Your task to perform on an android device: turn off improve location accuracy Image 0: 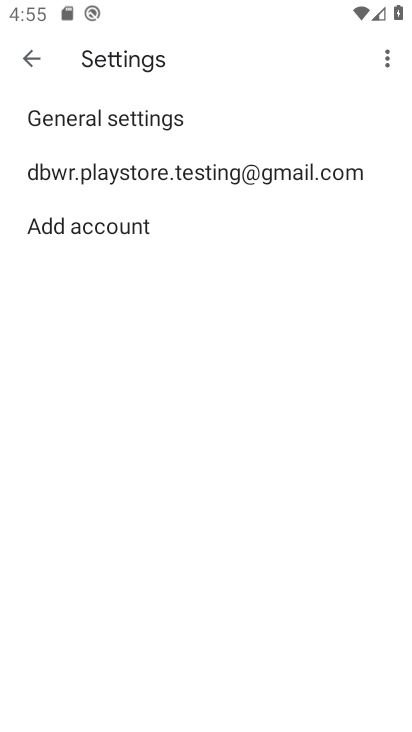
Step 0: press home button
Your task to perform on an android device: turn off improve location accuracy Image 1: 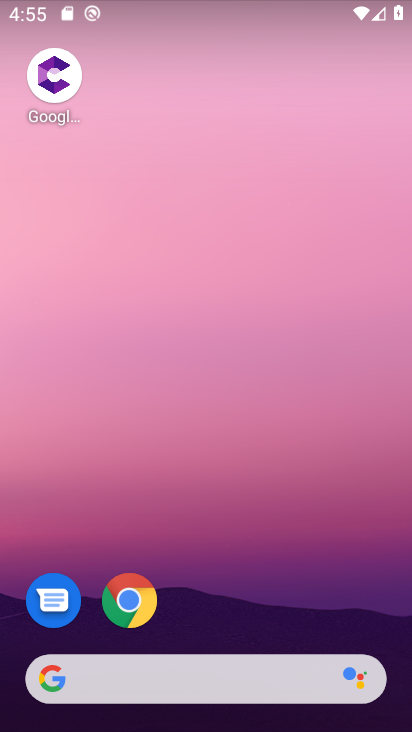
Step 1: drag from (314, 549) to (316, 134)
Your task to perform on an android device: turn off improve location accuracy Image 2: 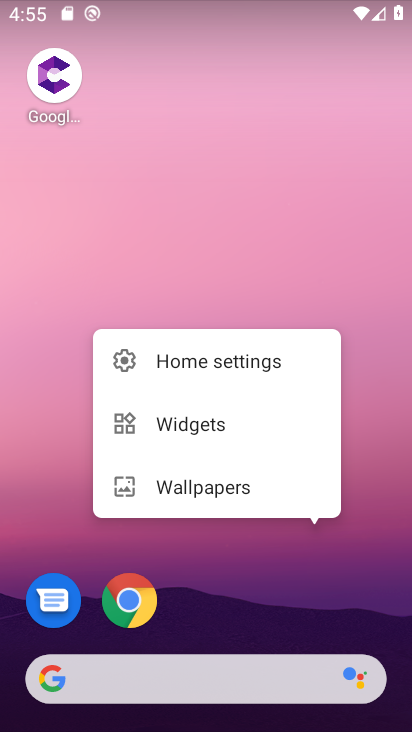
Step 2: click (368, 411)
Your task to perform on an android device: turn off improve location accuracy Image 3: 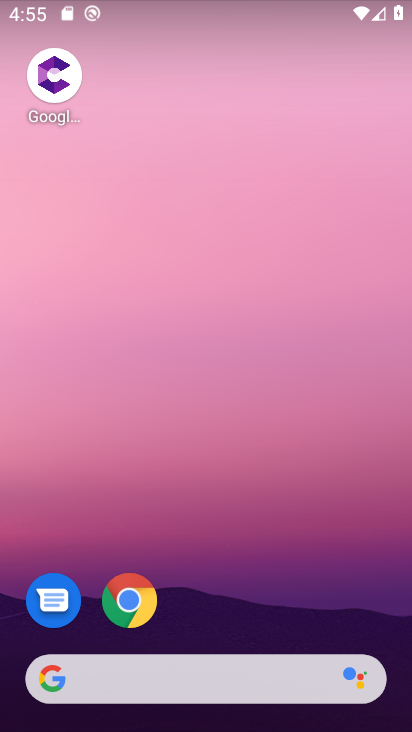
Step 3: drag from (275, 600) to (259, 165)
Your task to perform on an android device: turn off improve location accuracy Image 4: 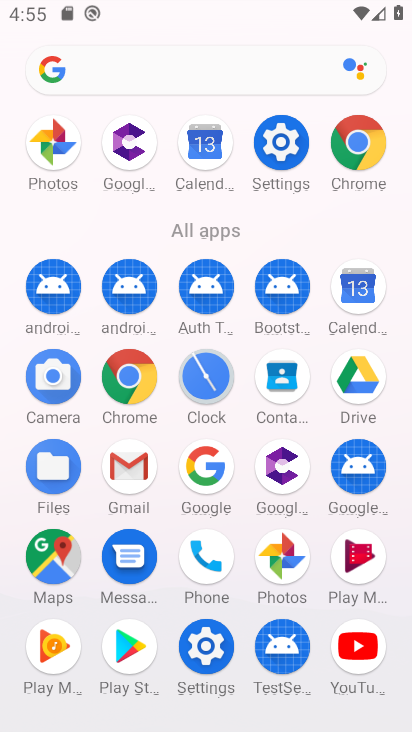
Step 4: click (273, 172)
Your task to perform on an android device: turn off improve location accuracy Image 5: 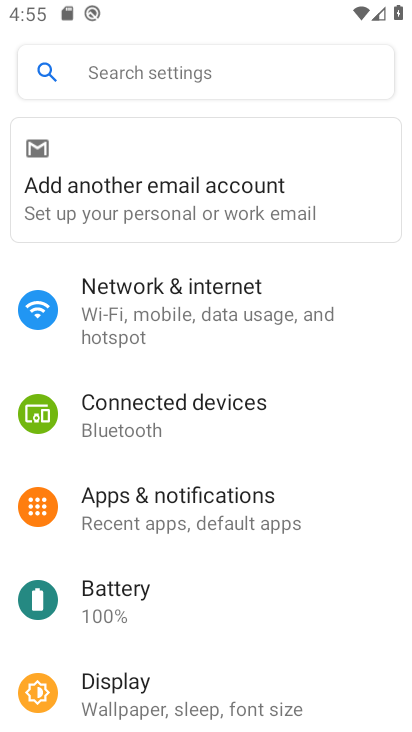
Step 5: drag from (243, 582) to (276, 197)
Your task to perform on an android device: turn off improve location accuracy Image 6: 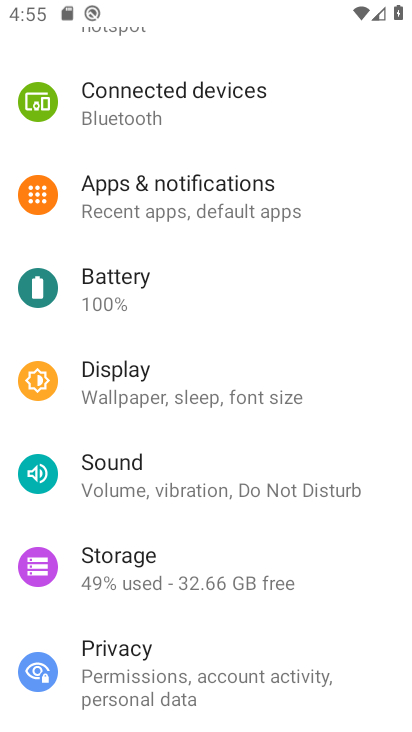
Step 6: drag from (220, 584) to (261, 350)
Your task to perform on an android device: turn off improve location accuracy Image 7: 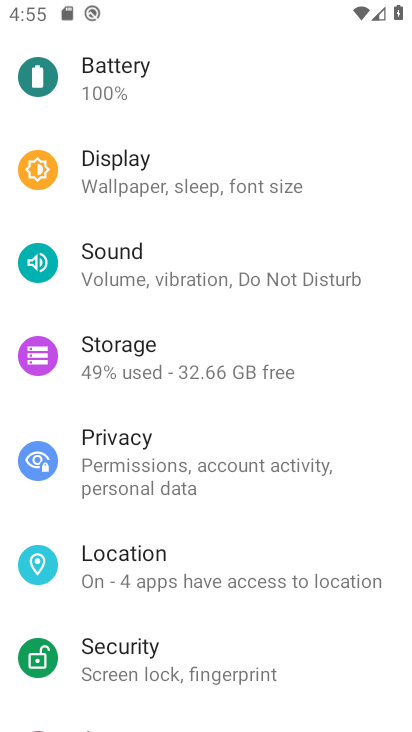
Step 7: click (229, 540)
Your task to perform on an android device: turn off improve location accuracy Image 8: 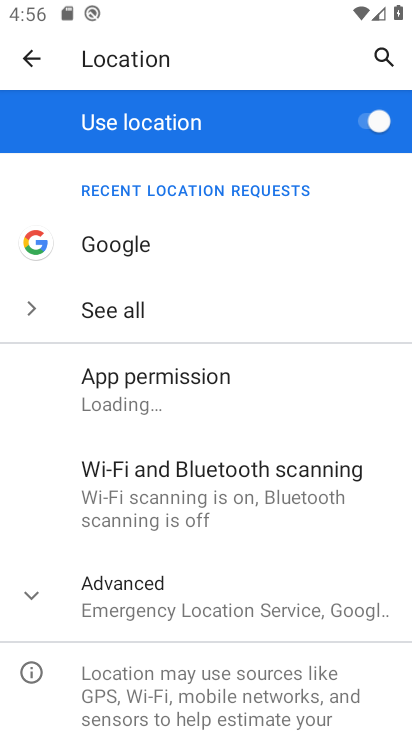
Step 8: drag from (218, 522) to (284, 179)
Your task to perform on an android device: turn off improve location accuracy Image 9: 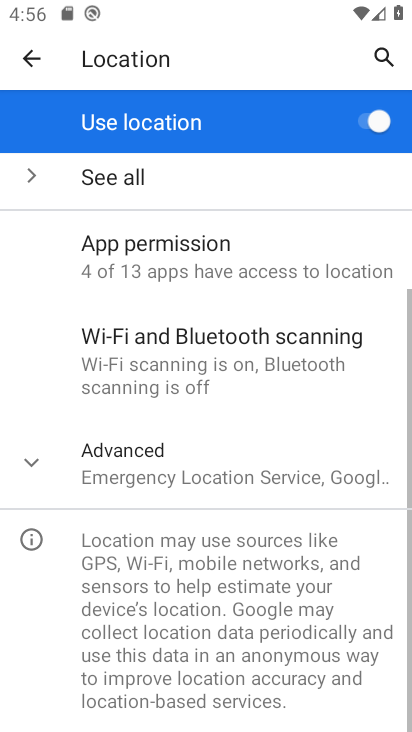
Step 9: click (203, 453)
Your task to perform on an android device: turn off improve location accuracy Image 10: 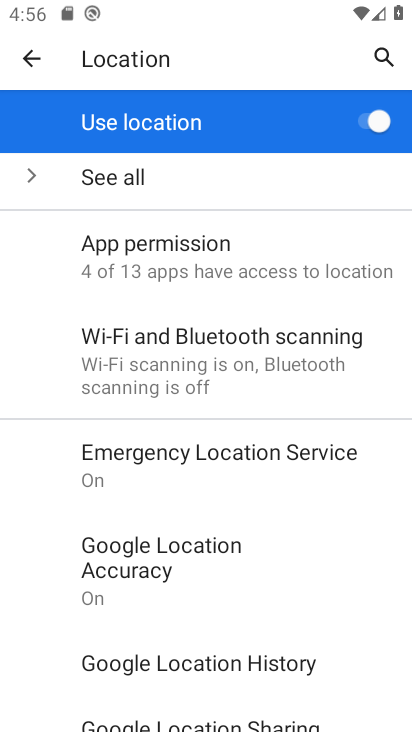
Step 10: drag from (201, 476) to (203, 234)
Your task to perform on an android device: turn off improve location accuracy Image 11: 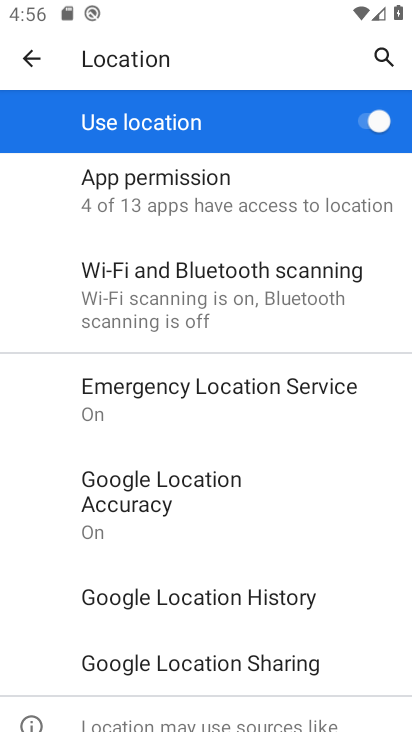
Step 11: click (216, 526)
Your task to perform on an android device: turn off improve location accuracy Image 12: 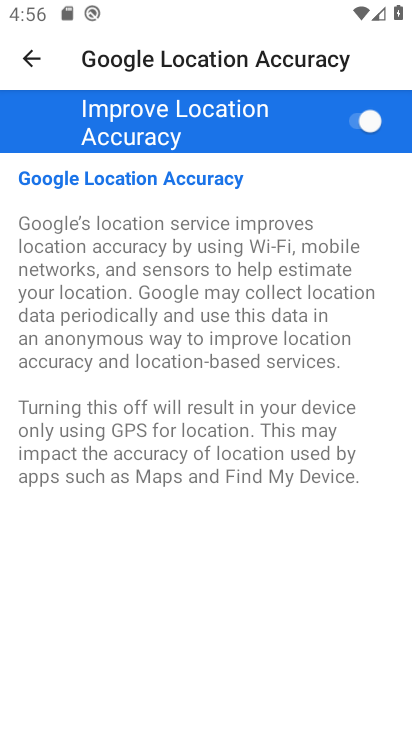
Step 12: click (364, 122)
Your task to perform on an android device: turn off improve location accuracy Image 13: 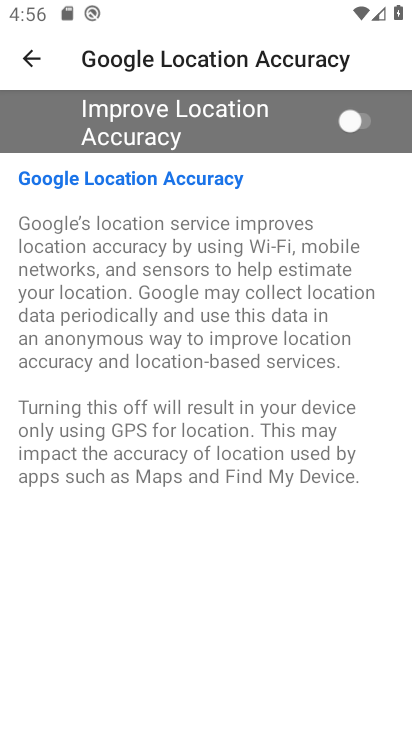
Step 13: task complete